Your task to perform on an android device: empty trash in the gmail app Image 0: 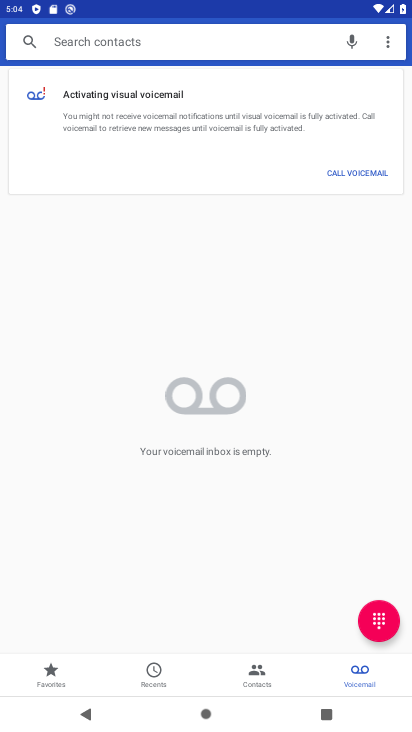
Step 0: drag from (196, 606) to (196, 174)
Your task to perform on an android device: empty trash in the gmail app Image 1: 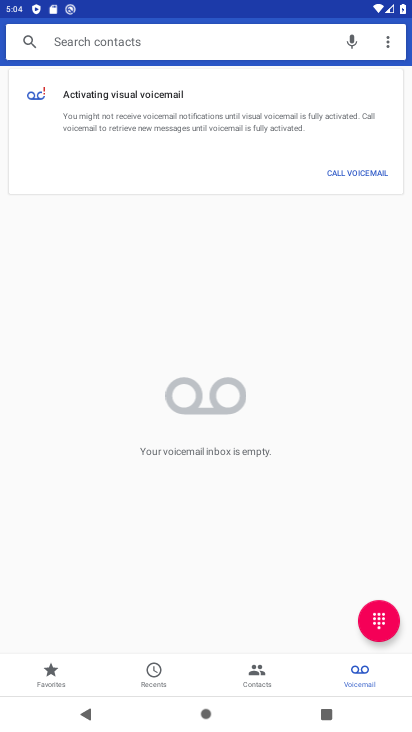
Step 1: press home button
Your task to perform on an android device: empty trash in the gmail app Image 2: 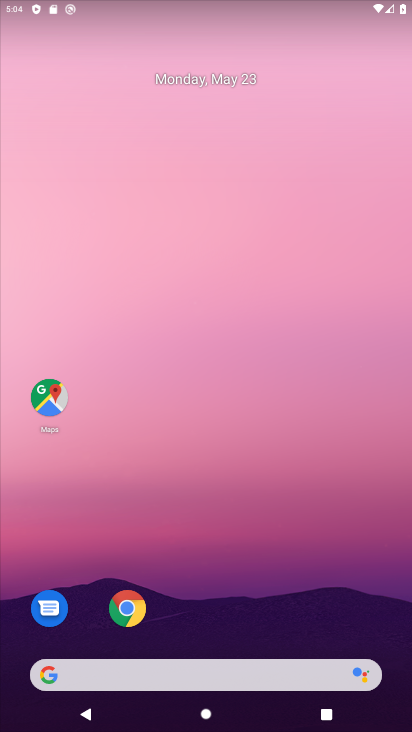
Step 2: drag from (209, 596) to (209, 103)
Your task to perform on an android device: empty trash in the gmail app Image 3: 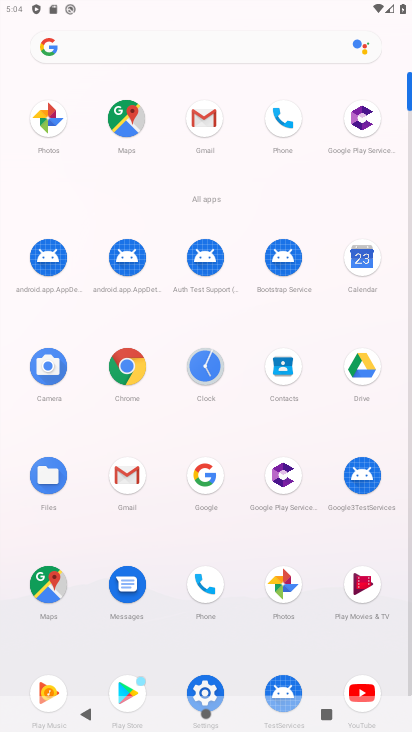
Step 3: click (127, 475)
Your task to perform on an android device: empty trash in the gmail app Image 4: 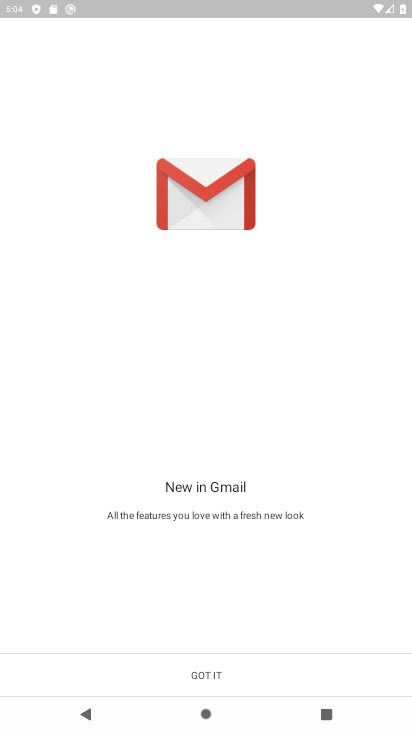
Step 4: click (202, 673)
Your task to perform on an android device: empty trash in the gmail app Image 5: 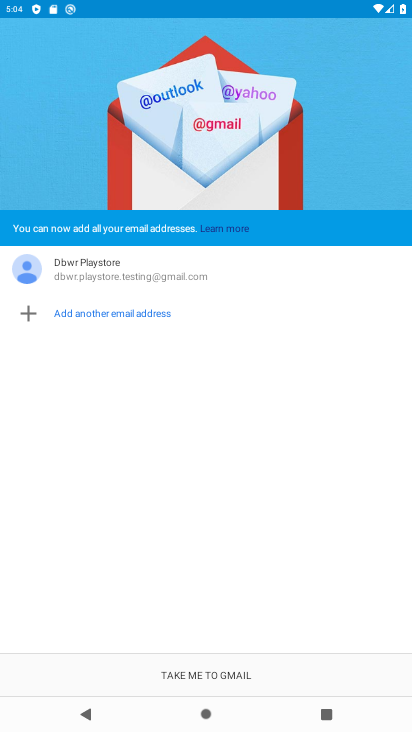
Step 5: click (203, 676)
Your task to perform on an android device: empty trash in the gmail app Image 6: 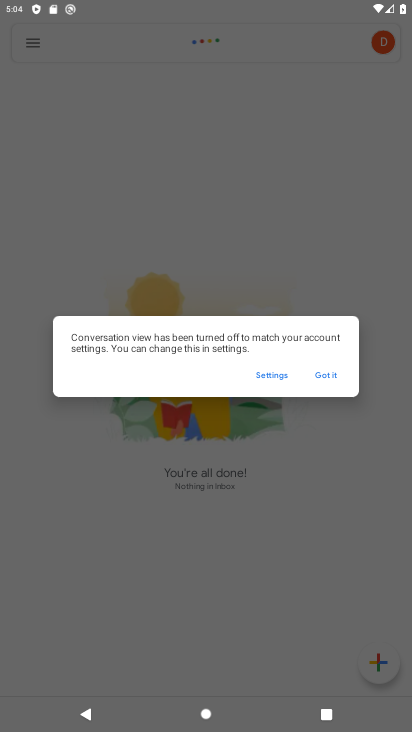
Step 6: click (329, 373)
Your task to perform on an android device: empty trash in the gmail app Image 7: 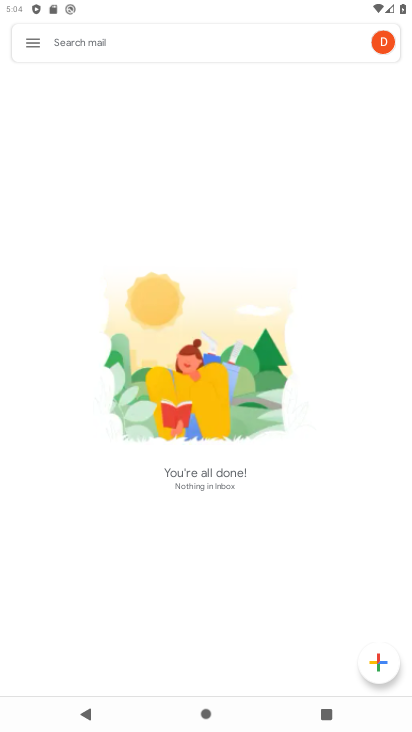
Step 7: click (37, 46)
Your task to perform on an android device: empty trash in the gmail app Image 8: 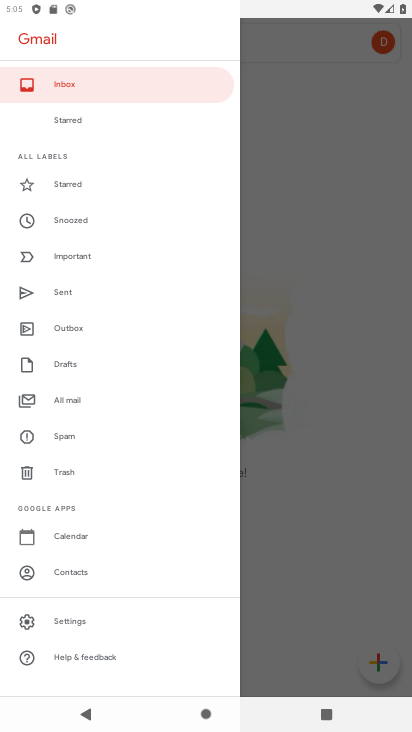
Step 8: click (76, 470)
Your task to perform on an android device: empty trash in the gmail app Image 9: 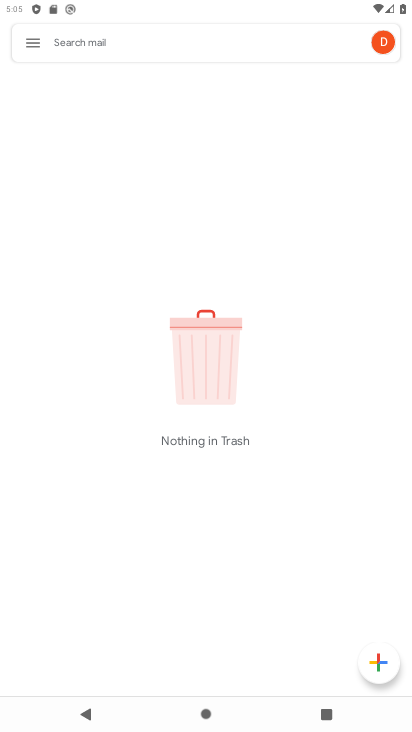
Step 9: task complete